Your task to perform on an android device: turn vacation reply on in the gmail app Image 0: 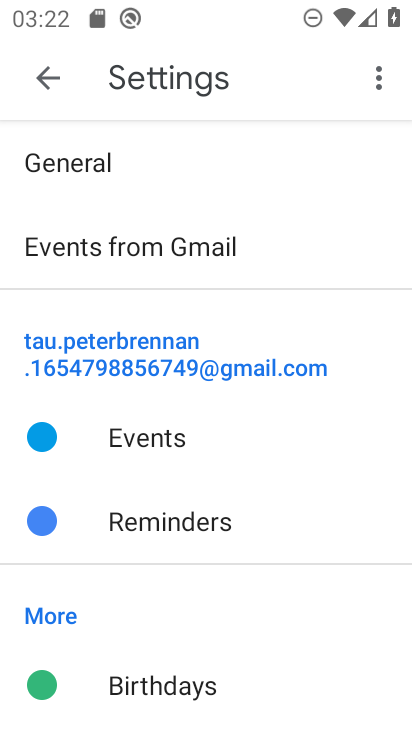
Step 0: press back button
Your task to perform on an android device: turn vacation reply on in the gmail app Image 1: 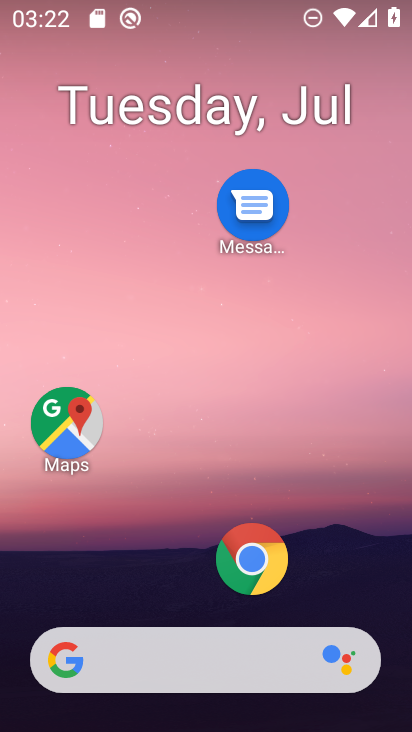
Step 1: drag from (151, 551) to (239, 48)
Your task to perform on an android device: turn vacation reply on in the gmail app Image 2: 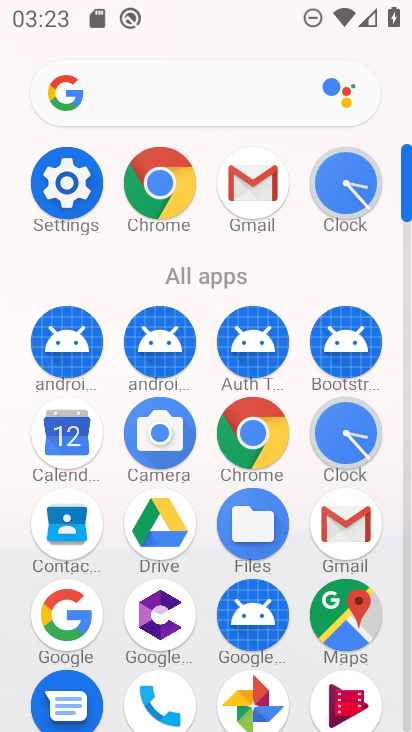
Step 2: click (252, 188)
Your task to perform on an android device: turn vacation reply on in the gmail app Image 3: 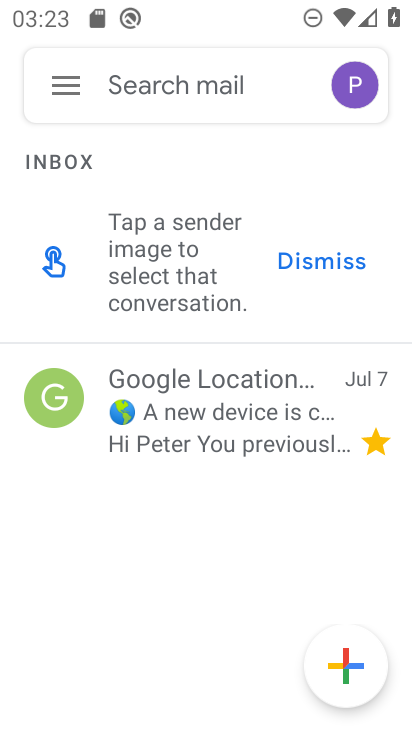
Step 3: click (69, 73)
Your task to perform on an android device: turn vacation reply on in the gmail app Image 4: 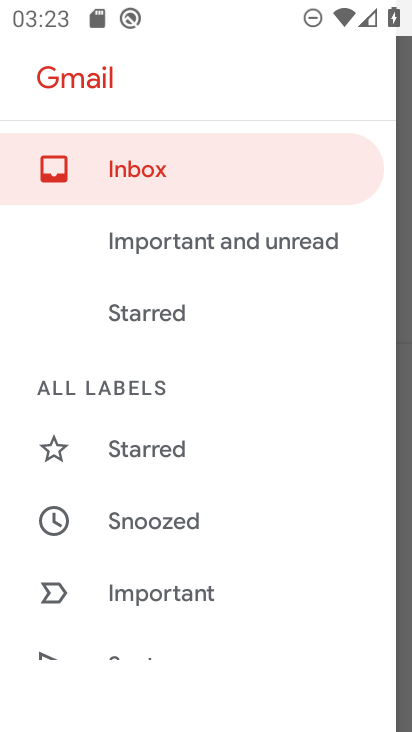
Step 4: drag from (146, 606) to (257, 73)
Your task to perform on an android device: turn vacation reply on in the gmail app Image 5: 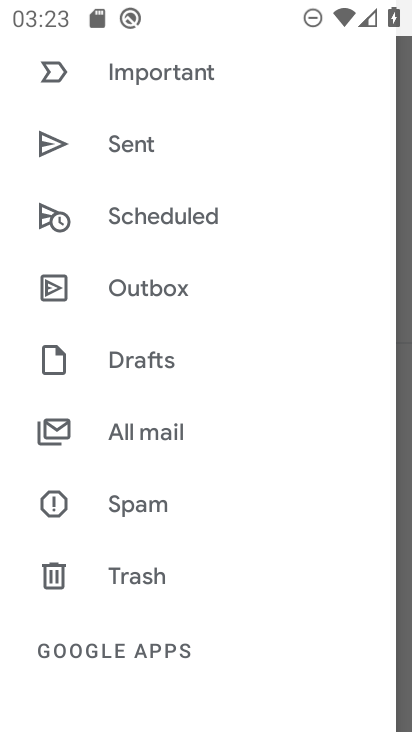
Step 5: drag from (144, 531) to (261, 60)
Your task to perform on an android device: turn vacation reply on in the gmail app Image 6: 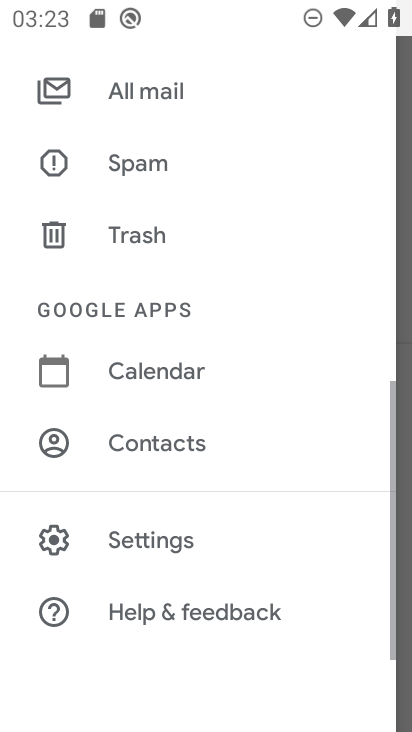
Step 6: click (136, 534)
Your task to perform on an android device: turn vacation reply on in the gmail app Image 7: 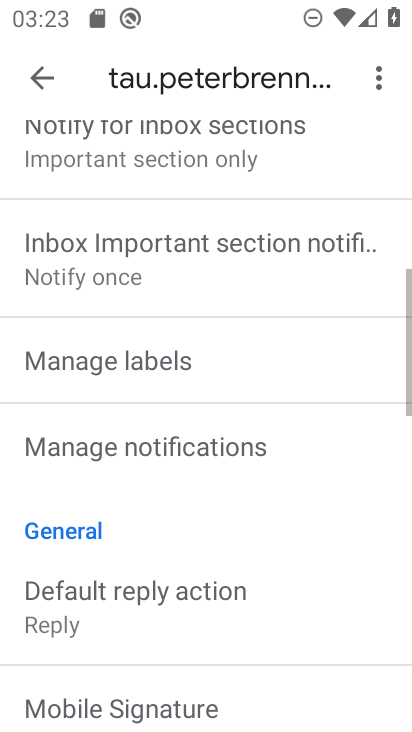
Step 7: drag from (131, 673) to (241, 107)
Your task to perform on an android device: turn vacation reply on in the gmail app Image 8: 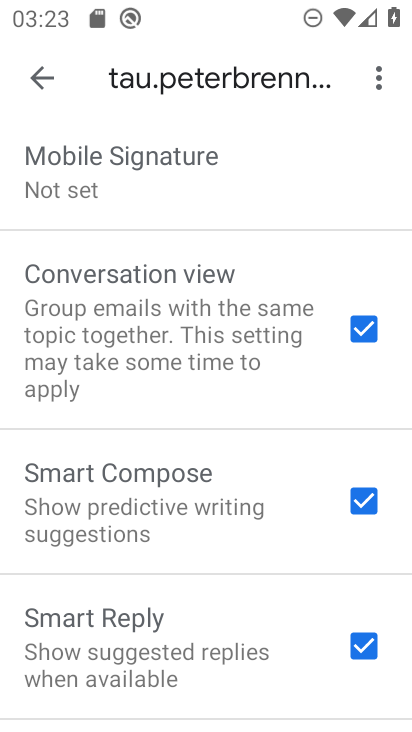
Step 8: drag from (198, 651) to (267, 106)
Your task to perform on an android device: turn vacation reply on in the gmail app Image 9: 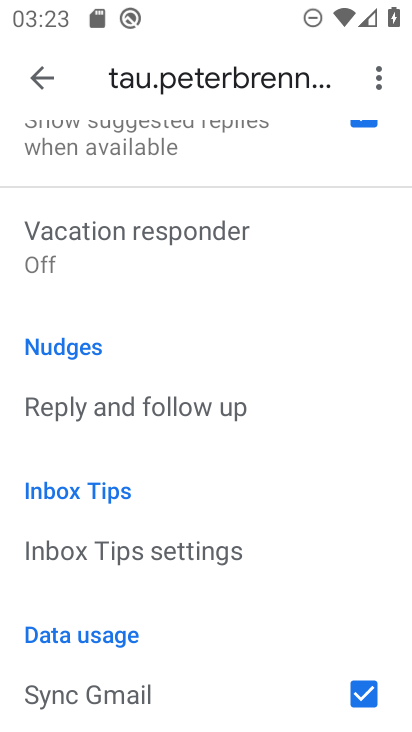
Step 9: drag from (242, 246) to (250, 421)
Your task to perform on an android device: turn vacation reply on in the gmail app Image 10: 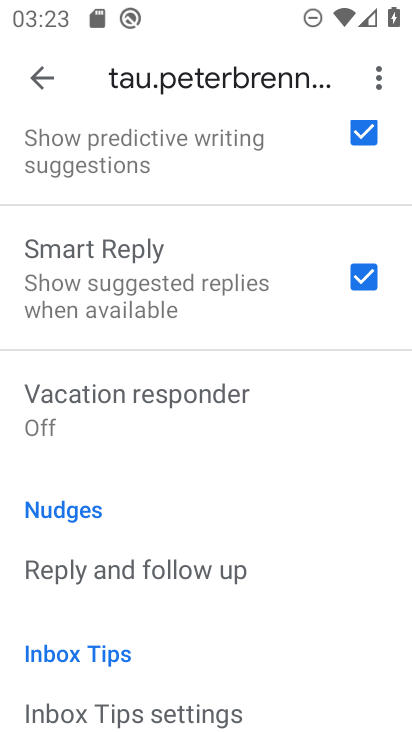
Step 10: click (122, 419)
Your task to perform on an android device: turn vacation reply on in the gmail app Image 11: 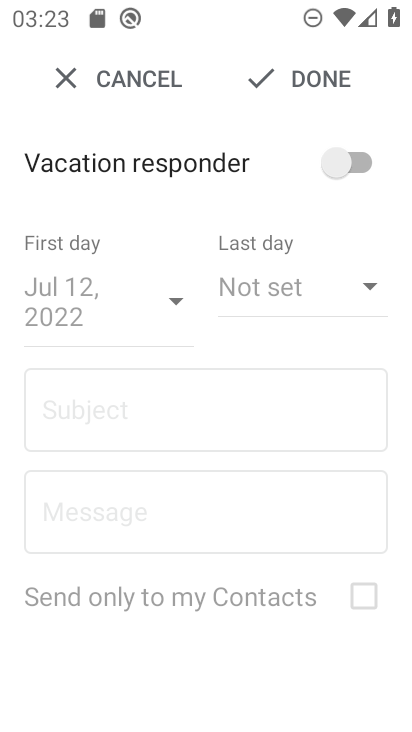
Step 11: click (351, 163)
Your task to perform on an android device: turn vacation reply on in the gmail app Image 12: 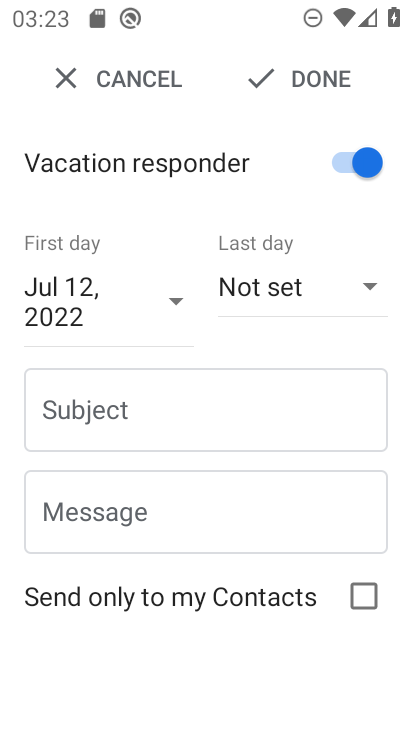
Step 12: task complete